Your task to perform on an android device: turn notification dots off Image 0: 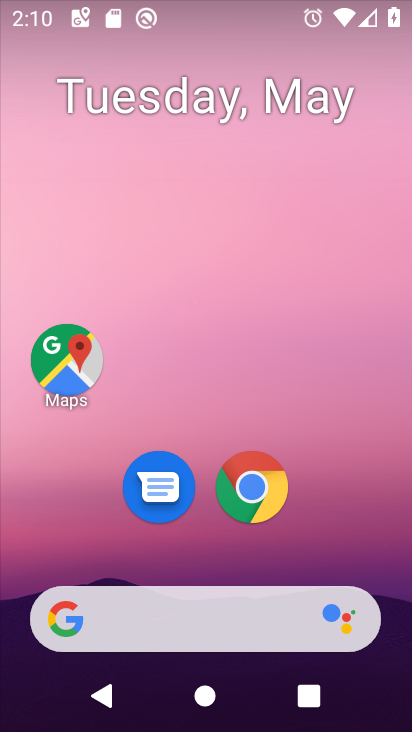
Step 0: drag from (145, 380) to (382, 46)
Your task to perform on an android device: turn notification dots off Image 1: 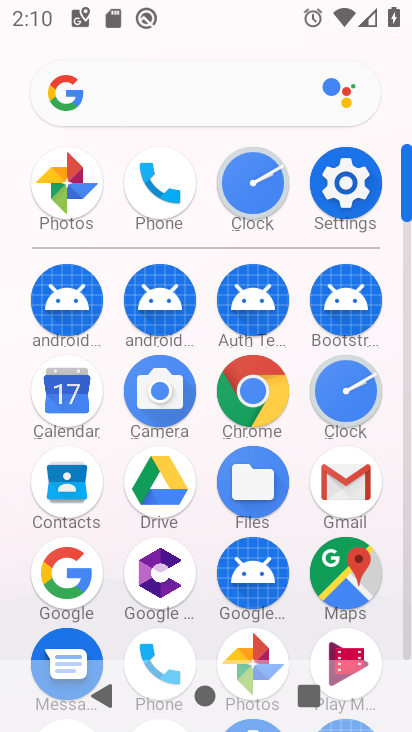
Step 1: click (345, 179)
Your task to perform on an android device: turn notification dots off Image 2: 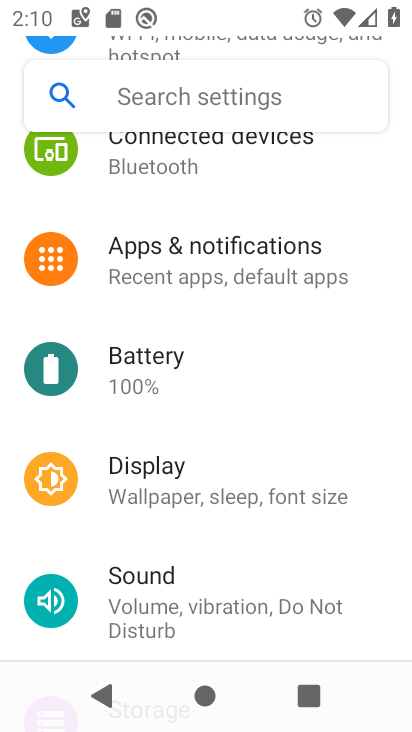
Step 2: click (174, 273)
Your task to perform on an android device: turn notification dots off Image 3: 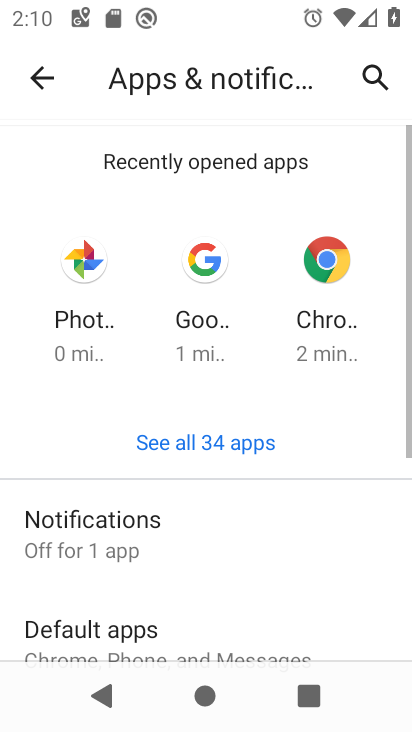
Step 3: click (108, 530)
Your task to perform on an android device: turn notification dots off Image 4: 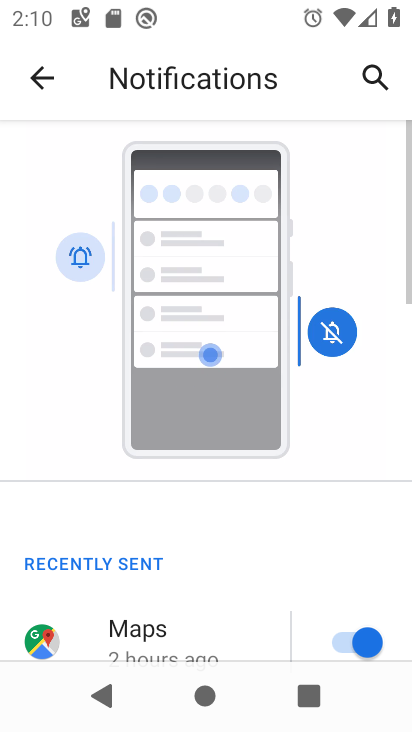
Step 4: drag from (13, 448) to (187, 170)
Your task to perform on an android device: turn notification dots off Image 5: 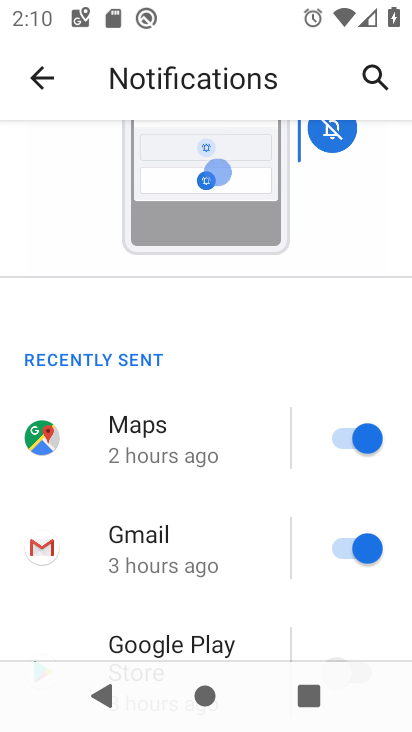
Step 5: drag from (48, 396) to (233, 143)
Your task to perform on an android device: turn notification dots off Image 6: 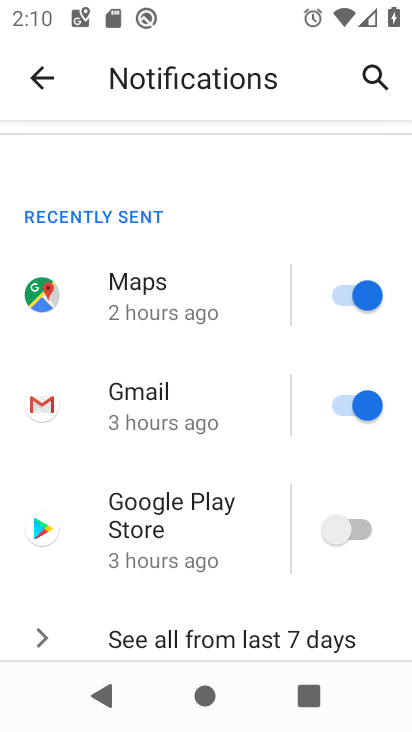
Step 6: drag from (35, 475) to (284, 94)
Your task to perform on an android device: turn notification dots off Image 7: 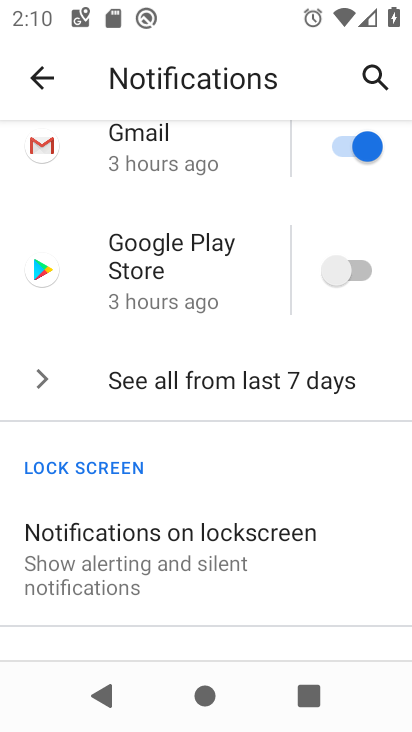
Step 7: drag from (19, 566) to (276, 88)
Your task to perform on an android device: turn notification dots off Image 8: 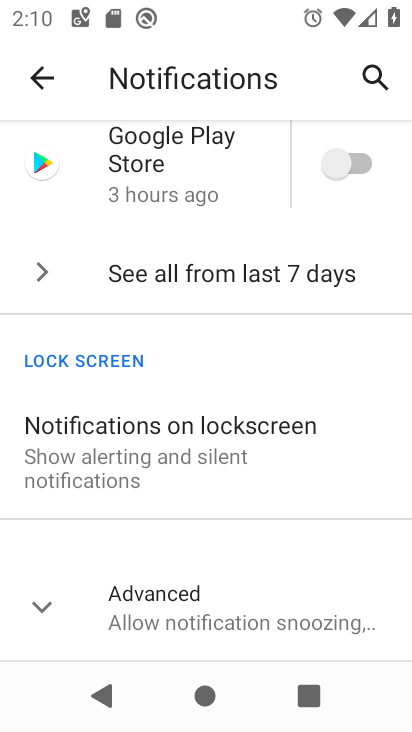
Step 8: click (80, 586)
Your task to perform on an android device: turn notification dots off Image 9: 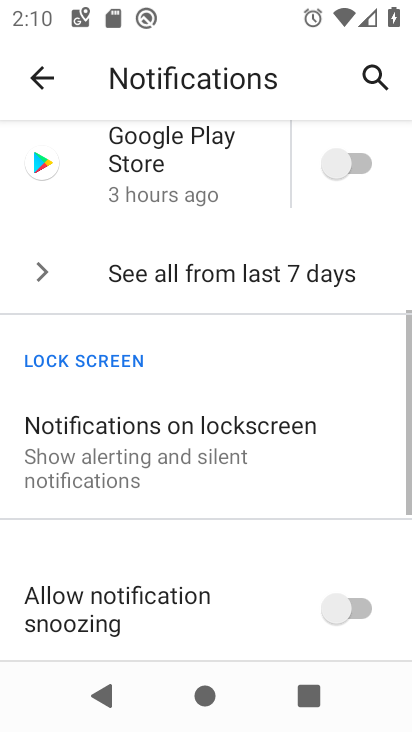
Step 9: drag from (26, 439) to (262, 110)
Your task to perform on an android device: turn notification dots off Image 10: 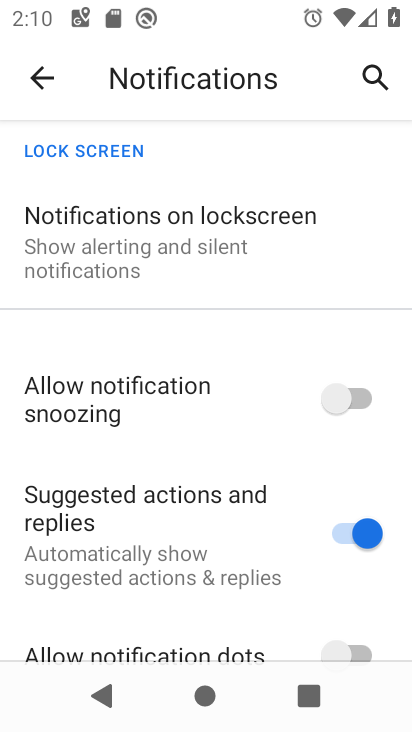
Step 10: drag from (18, 573) to (198, 250)
Your task to perform on an android device: turn notification dots off Image 11: 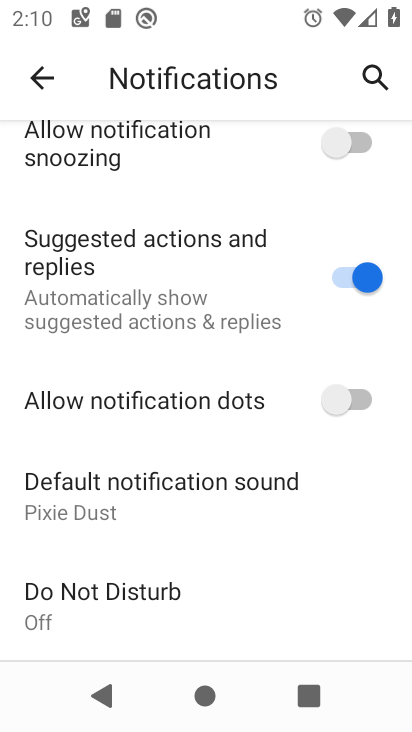
Step 11: click (346, 392)
Your task to perform on an android device: turn notification dots off Image 12: 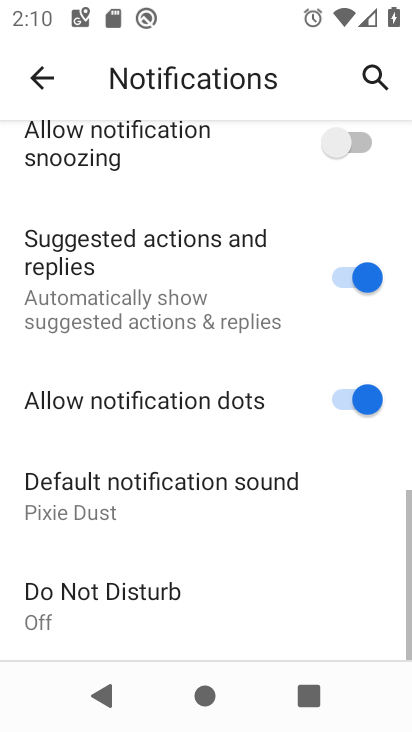
Step 12: task complete